Your task to perform on an android device: turn on airplane mode Image 0: 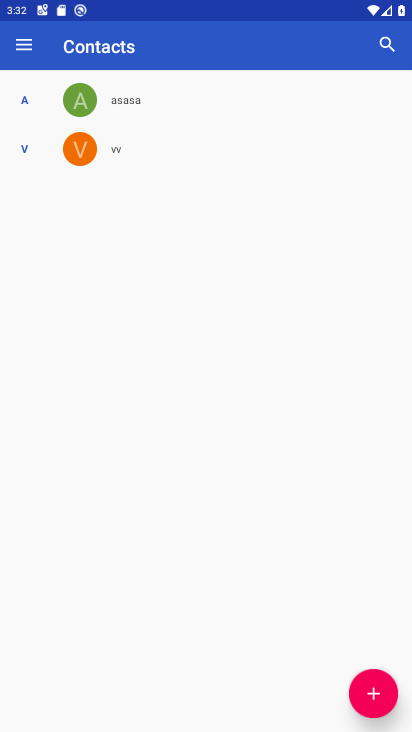
Step 0: press home button
Your task to perform on an android device: turn on airplane mode Image 1: 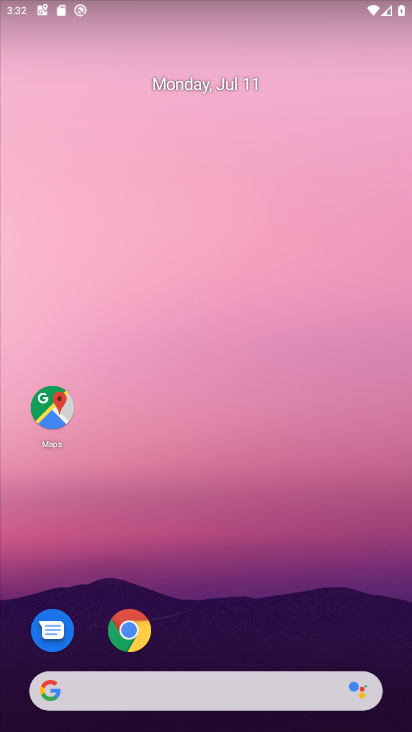
Step 1: drag from (263, 632) to (209, 218)
Your task to perform on an android device: turn on airplane mode Image 2: 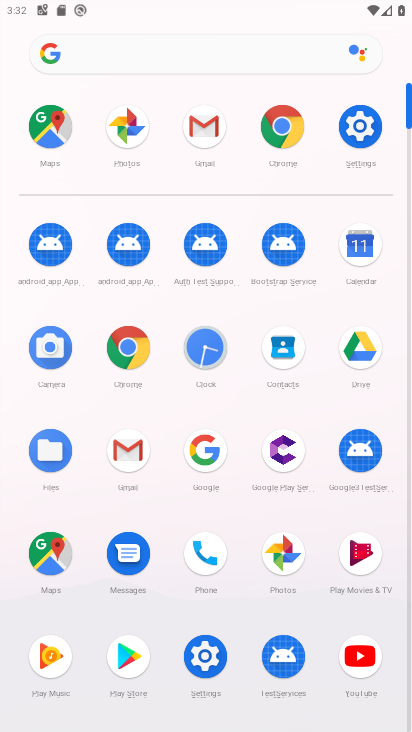
Step 2: click (355, 155)
Your task to perform on an android device: turn on airplane mode Image 3: 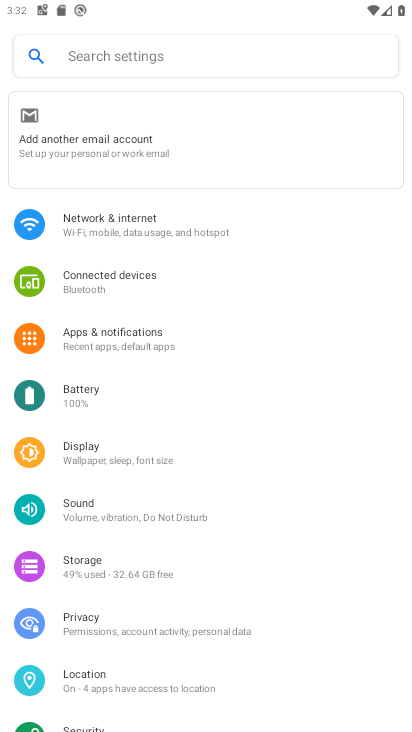
Step 3: click (107, 226)
Your task to perform on an android device: turn on airplane mode Image 4: 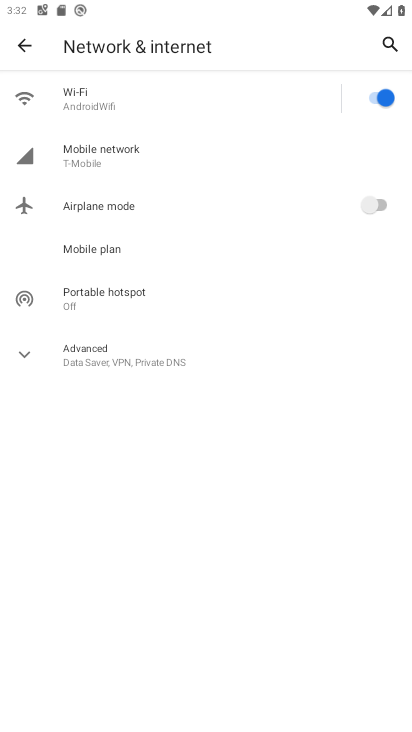
Step 4: click (367, 190)
Your task to perform on an android device: turn on airplane mode Image 5: 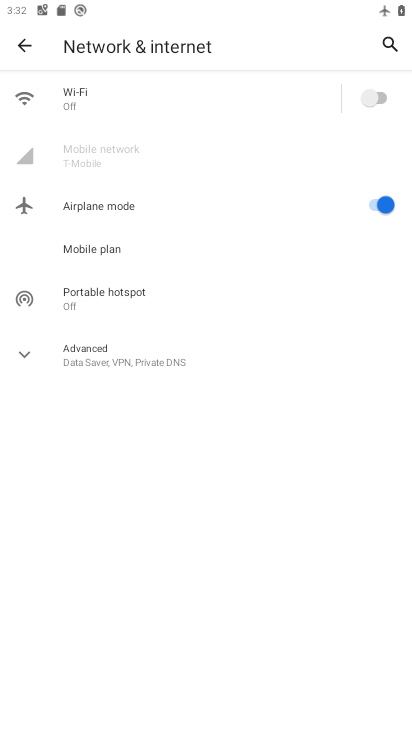
Step 5: task complete